Your task to perform on an android device: Open network settings Image 0: 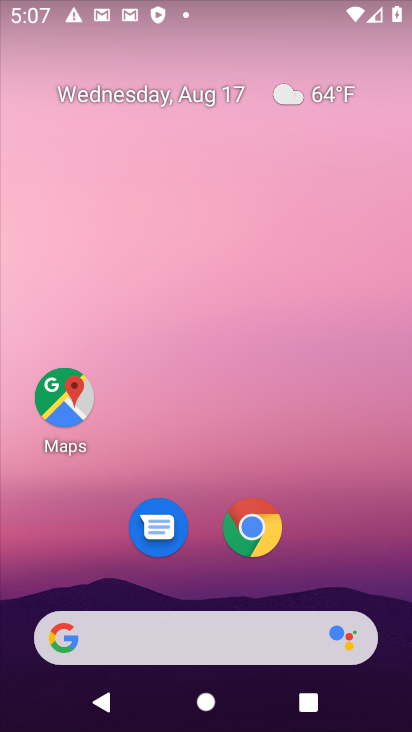
Step 0: drag from (129, 584) to (137, 228)
Your task to perform on an android device: Open network settings Image 1: 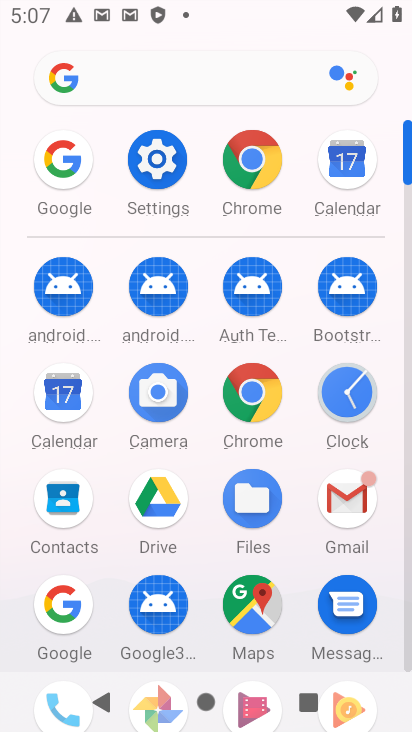
Step 1: click (152, 157)
Your task to perform on an android device: Open network settings Image 2: 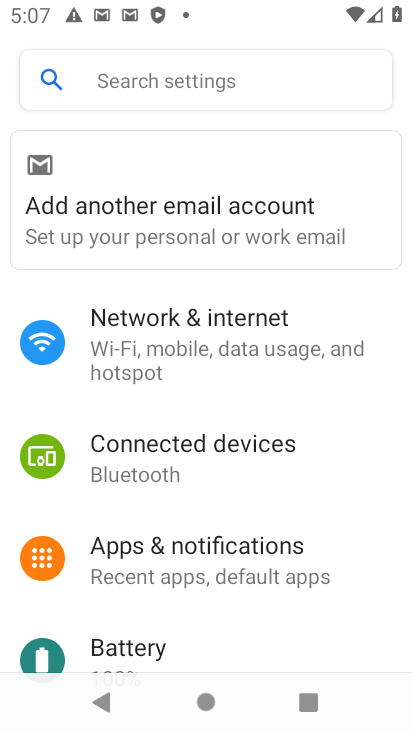
Step 2: click (130, 177)
Your task to perform on an android device: Open network settings Image 3: 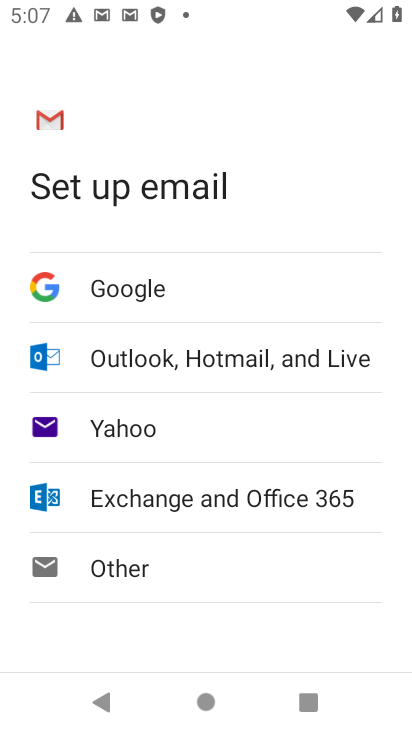
Step 3: press back button
Your task to perform on an android device: Open network settings Image 4: 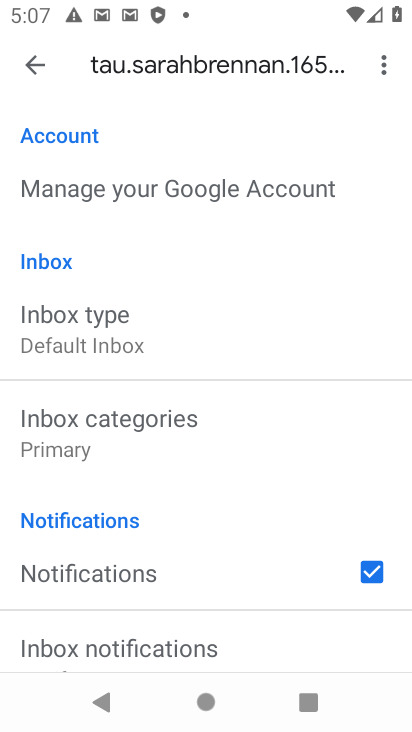
Step 4: press back button
Your task to perform on an android device: Open network settings Image 5: 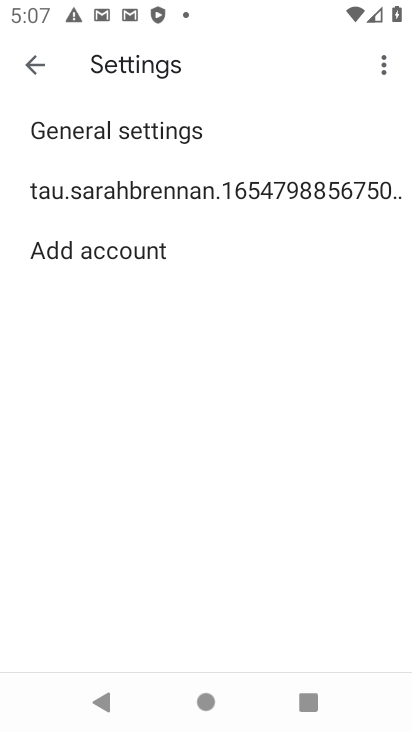
Step 5: press back button
Your task to perform on an android device: Open network settings Image 6: 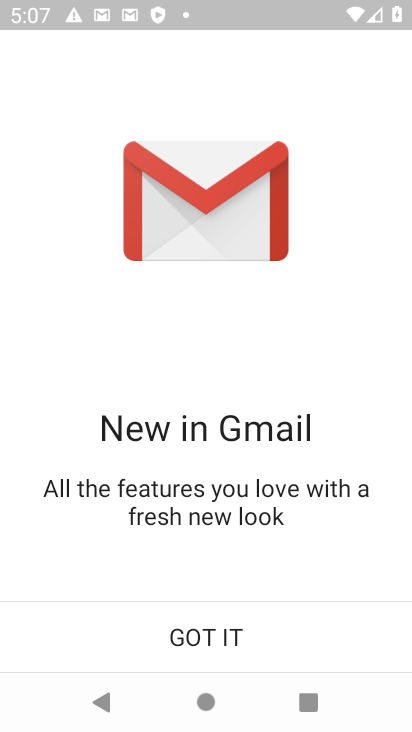
Step 6: press back button
Your task to perform on an android device: Open network settings Image 7: 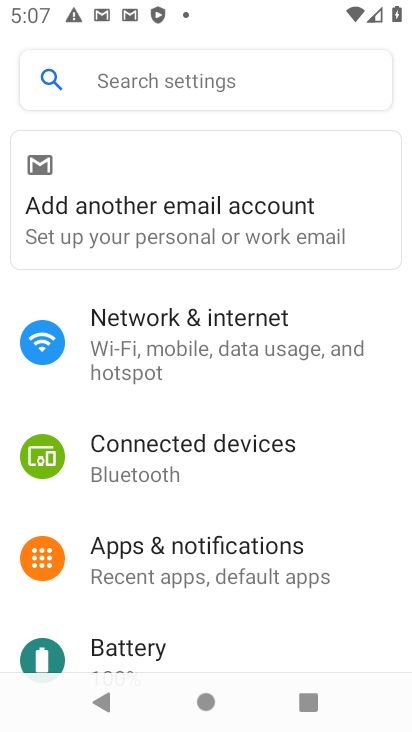
Step 7: click (102, 355)
Your task to perform on an android device: Open network settings Image 8: 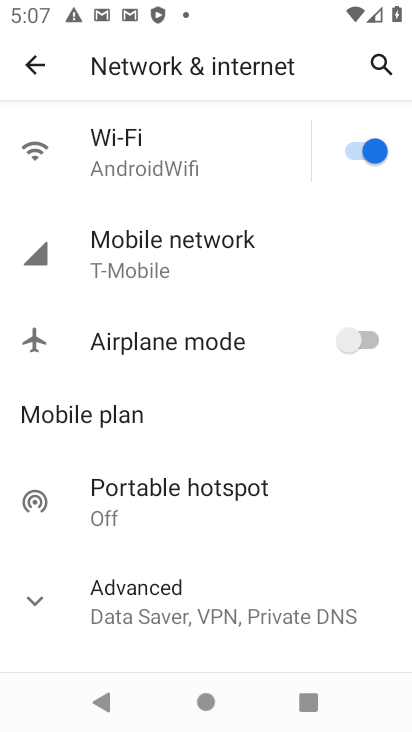
Step 8: click (109, 607)
Your task to perform on an android device: Open network settings Image 9: 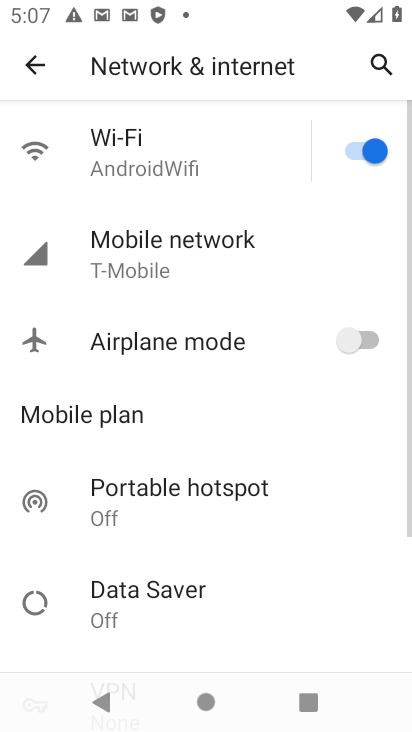
Step 9: task complete